Your task to perform on an android device: Open the Play Movies app and select the watchlist tab. Image 0: 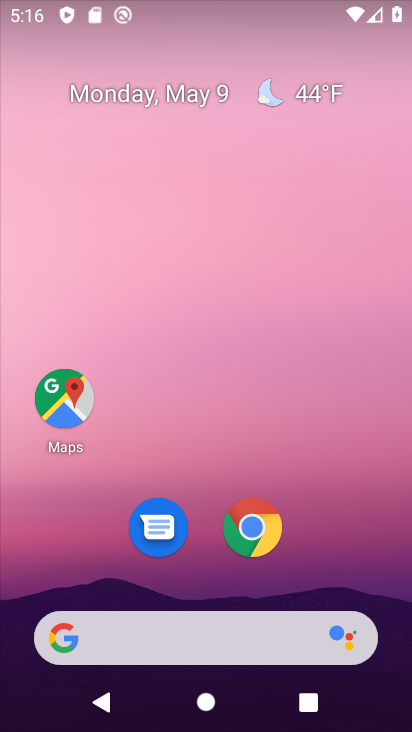
Step 0: drag from (343, 488) to (248, 33)
Your task to perform on an android device: Open the Play Movies app and select the watchlist tab. Image 1: 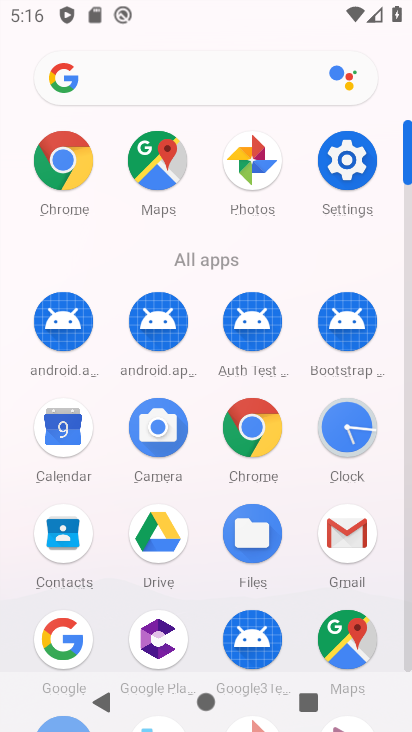
Step 1: drag from (26, 605) to (30, 238)
Your task to perform on an android device: Open the Play Movies app and select the watchlist tab. Image 2: 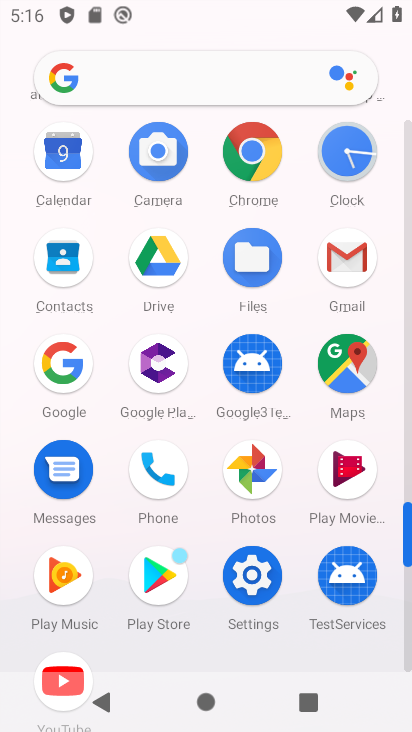
Step 2: click (350, 472)
Your task to perform on an android device: Open the Play Movies app and select the watchlist tab. Image 3: 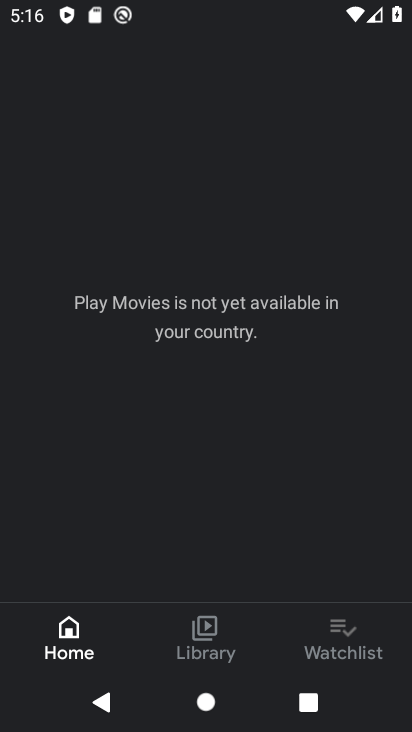
Step 3: click (328, 635)
Your task to perform on an android device: Open the Play Movies app and select the watchlist tab. Image 4: 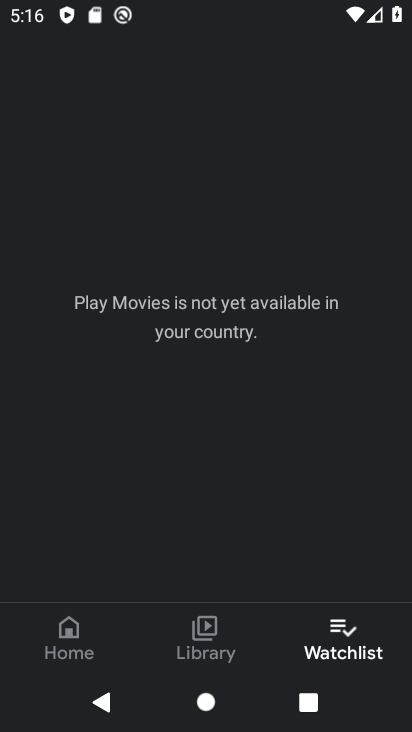
Step 4: task complete